Your task to perform on an android device: Open battery settings Image 0: 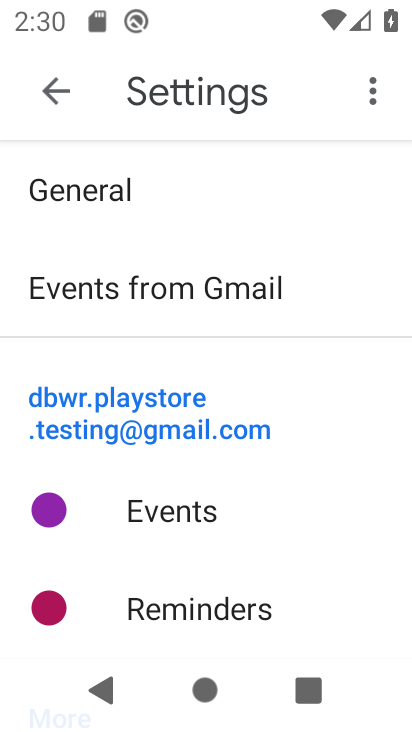
Step 0: press home button
Your task to perform on an android device: Open battery settings Image 1: 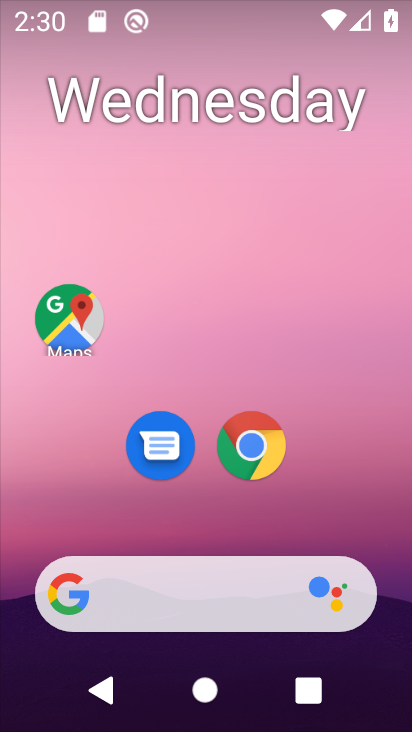
Step 1: drag from (352, 508) to (344, 5)
Your task to perform on an android device: Open battery settings Image 2: 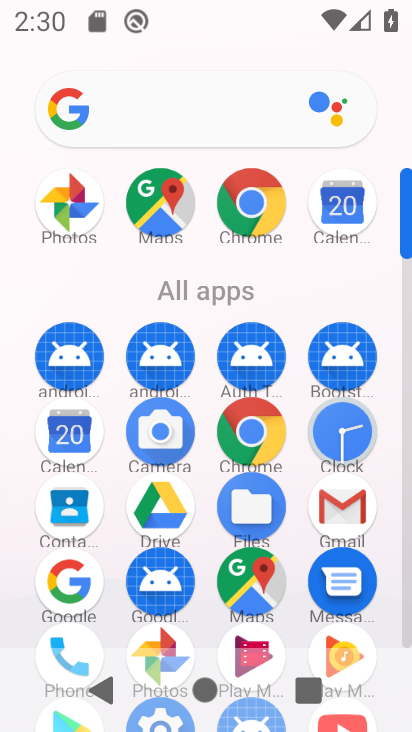
Step 2: click (409, 593)
Your task to perform on an android device: Open battery settings Image 3: 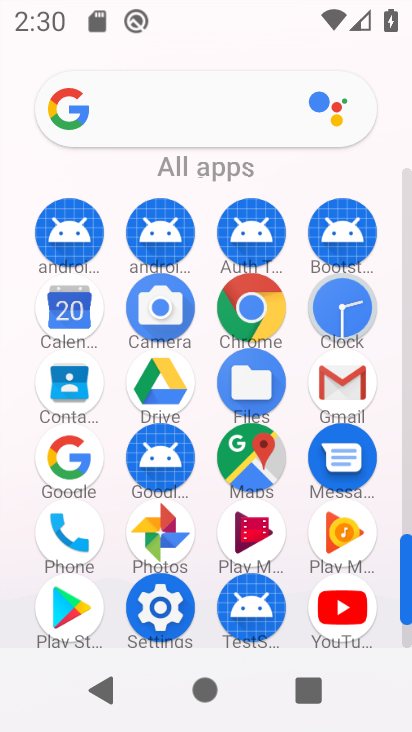
Step 3: click (159, 613)
Your task to perform on an android device: Open battery settings Image 4: 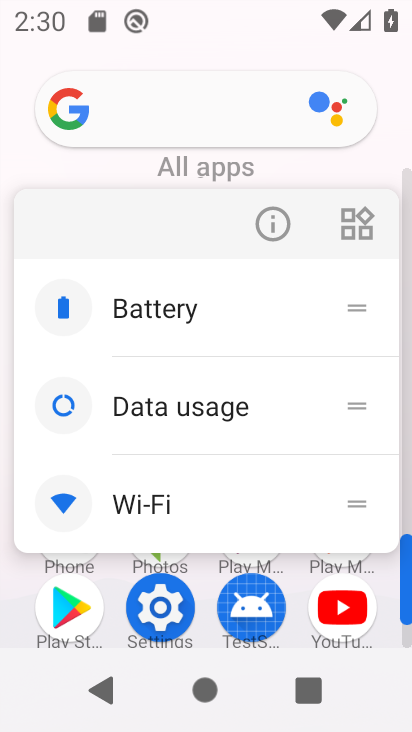
Step 4: click (142, 309)
Your task to perform on an android device: Open battery settings Image 5: 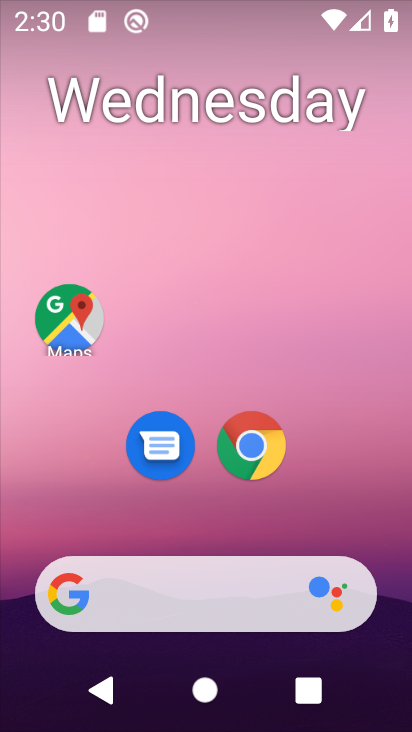
Step 5: drag from (337, 479) to (320, 22)
Your task to perform on an android device: Open battery settings Image 6: 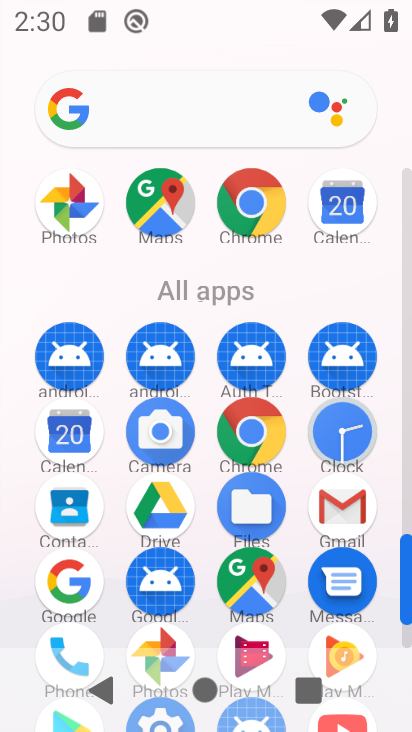
Step 6: drag from (409, 548) to (404, 501)
Your task to perform on an android device: Open battery settings Image 7: 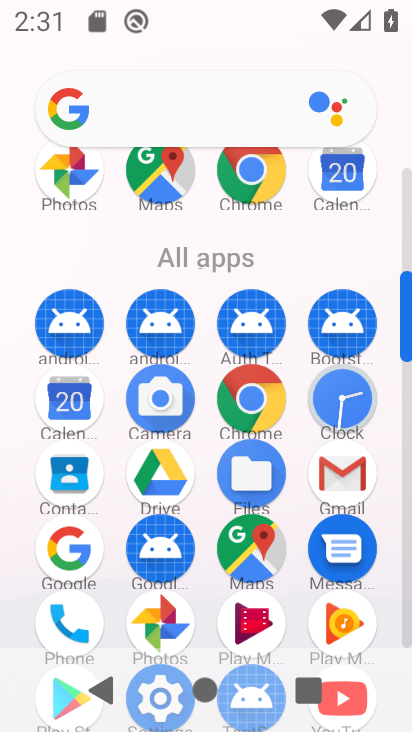
Step 7: drag from (409, 296) to (408, 230)
Your task to perform on an android device: Open battery settings Image 8: 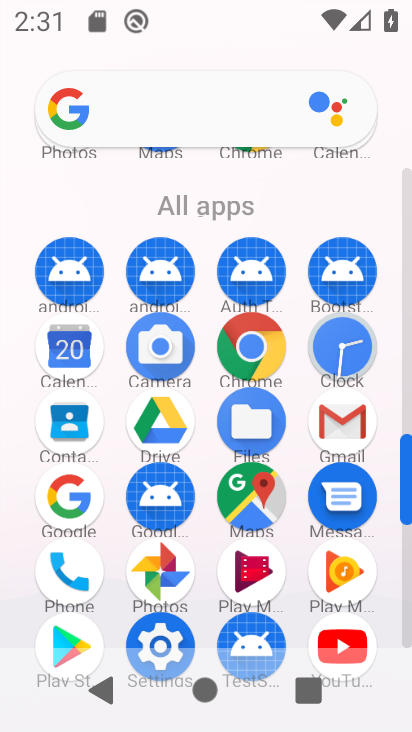
Step 8: click (165, 627)
Your task to perform on an android device: Open battery settings Image 9: 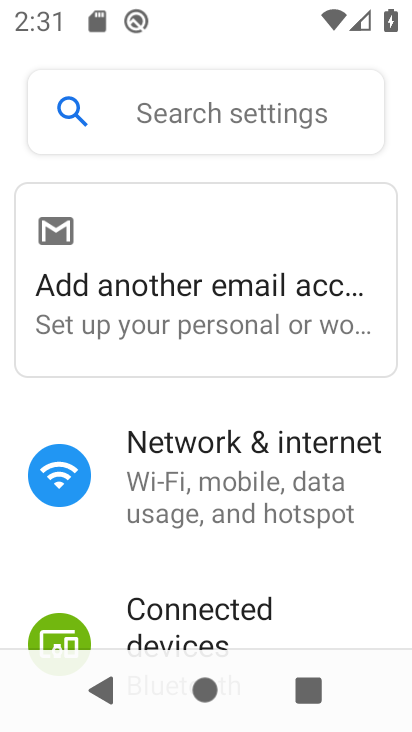
Step 9: drag from (329, 590) to (289, 229)
Your task to perform on an android device: Open battery settings Image 10: 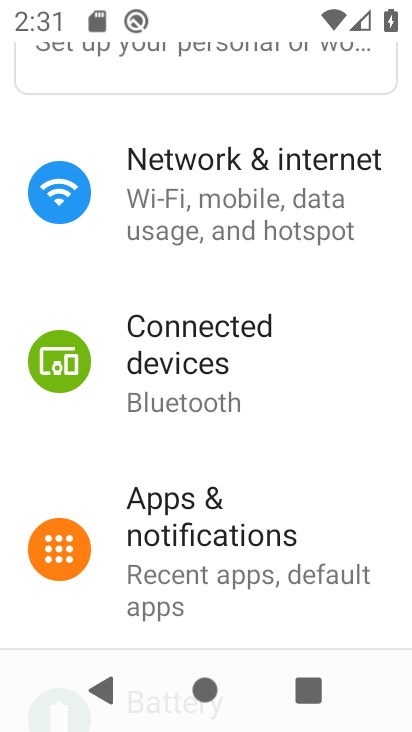
Step 10: drag from (275, 472) to (277, 185)
Your task to perform on an android device: Open battery settings Image 11: 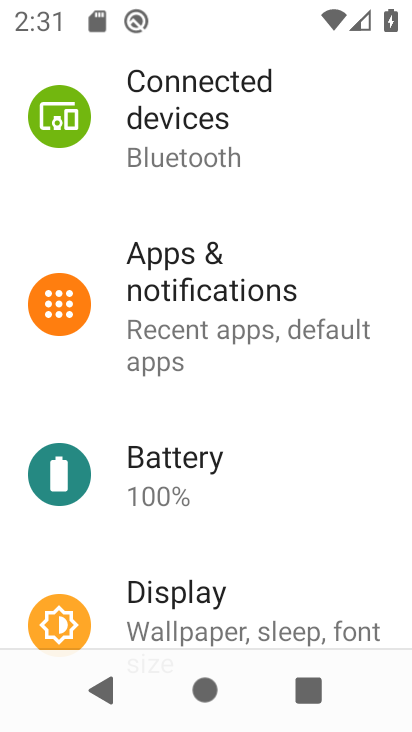
Step 11: click (143, 479)
Your task to perform on an android device: Open battery settings Image 12: 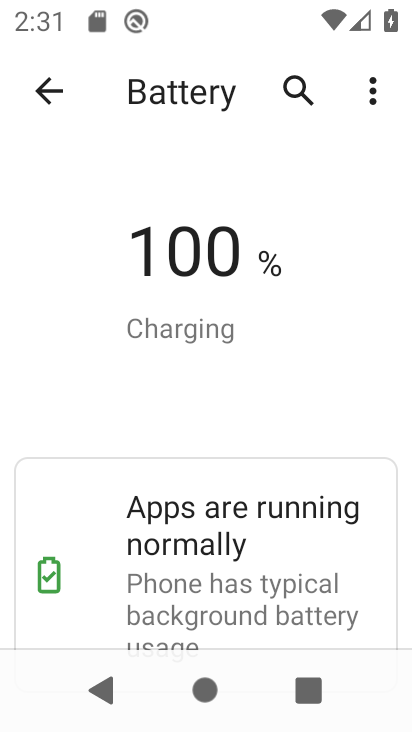
Step 12: task complete